Your task to perform on an android device: uninstall "Booking.com: Hotels and more" Image 0: 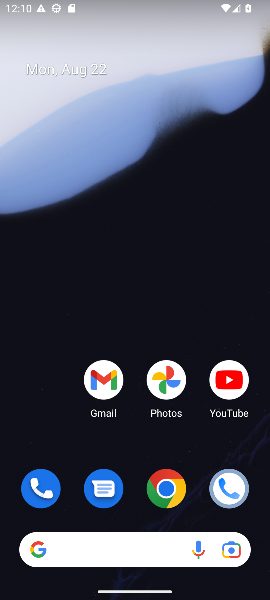
Step 0: click (139, 501)
Your task to perform on an android device: uninstall "Booking.com: Hotels and more" Image 1: 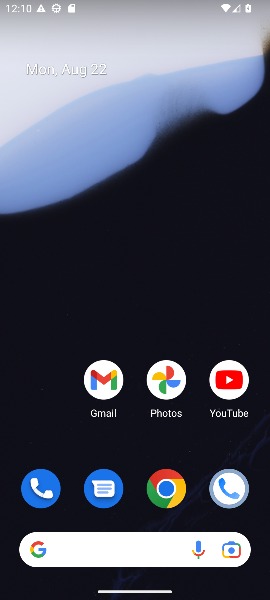
Step 1: drag from (122, 505) to (156, 111)
Your task to perform on an android device: uninstall "Booking.com: Hotels and more" Image 2: 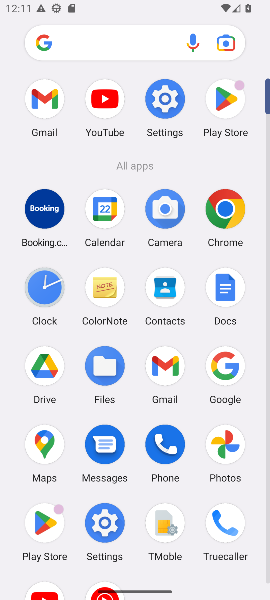
Step 2: click (221, 108)
Your task to perform on an android device: uninstall "Booking.com: Hotels and more" Image 3: 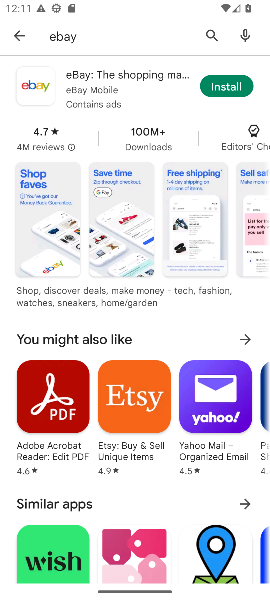
Step 3: click (19, 37)
Your task to perform on an android device: uninstall "Booking.com: Hotels and more" Image 4: 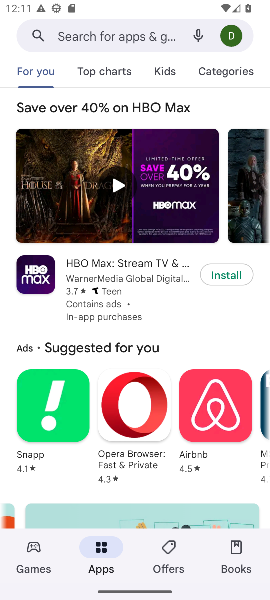
Step 4: click (110, 39)
Your task to perform on an android device: uninstall "Booking.com: Hotels and more" Image 5: 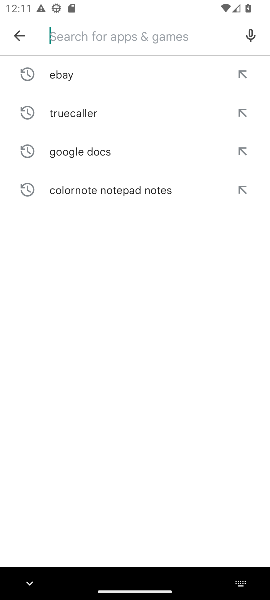
Step 5: type "Booking.com: Hotels and more"
Your task to perform on an android device: uninstall "Booking.com: Hotels and more" Image 6: 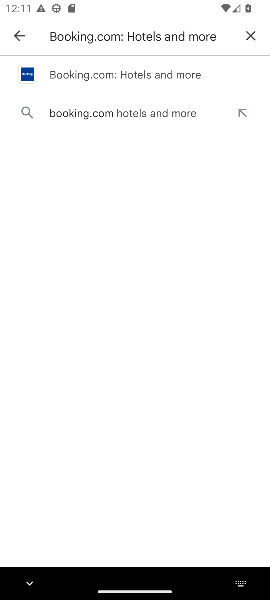
Step 6: click (160, 73)
Your task to perform on an android device: uninstall "Booking.com: Hotels and more" Image 7: 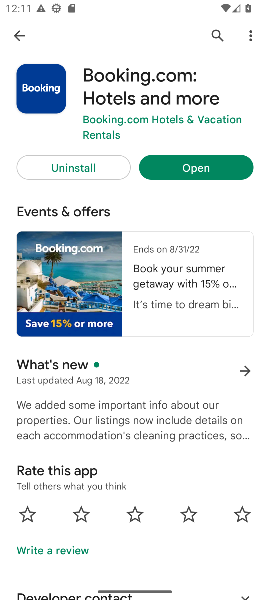
Step 7: task complete